Your task to perform on an android device: stop showing notifications on the lock screen Image 0: 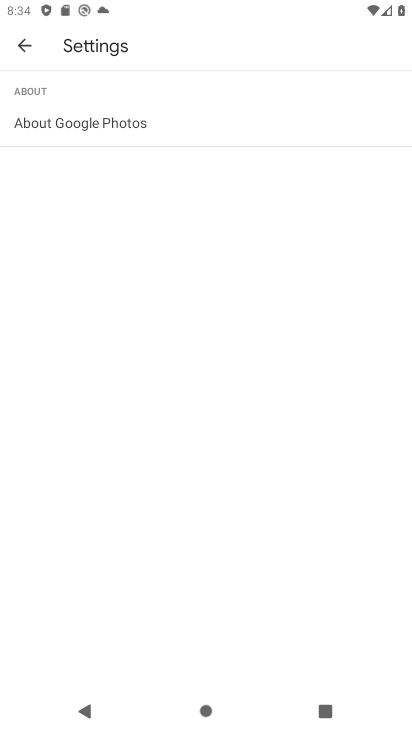
Step 0: press home button
Your task to perform on an android device: stop showing notifications on the lock screen Image 1: 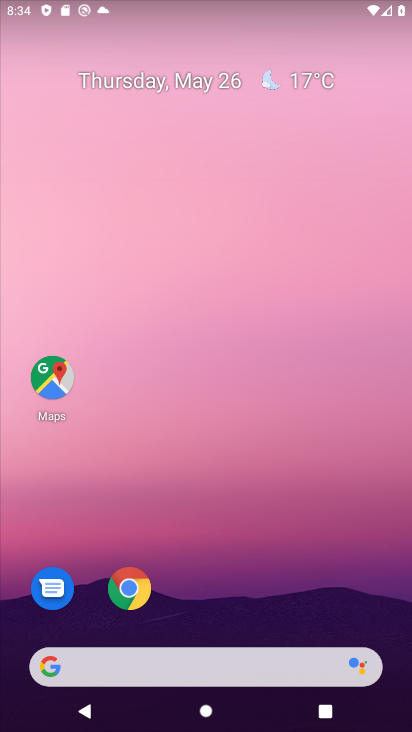
Step 1: drag from (363, 614) to (318, 39)
Your task to perform on an android device: stop showing notifications on the lock screen Image 2: 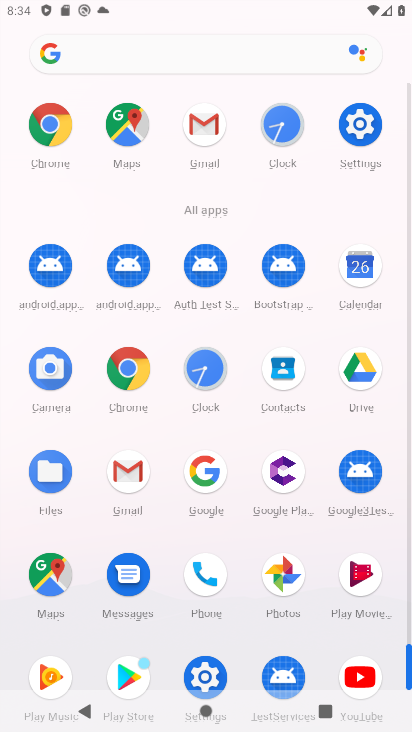
Step 2: click (409, 636)
Your task to perform on an android device: stop showing notifications on the lock screen Image 3: 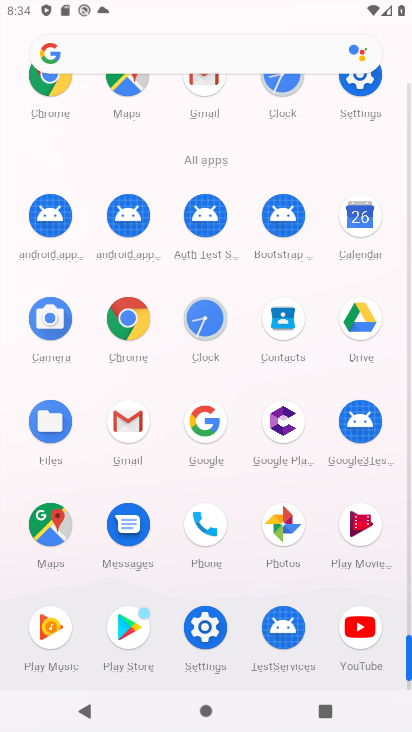
Step 3: click (201, 625)
Your task to perform on an android device: stop showing notifications on the lock screen Image 4: 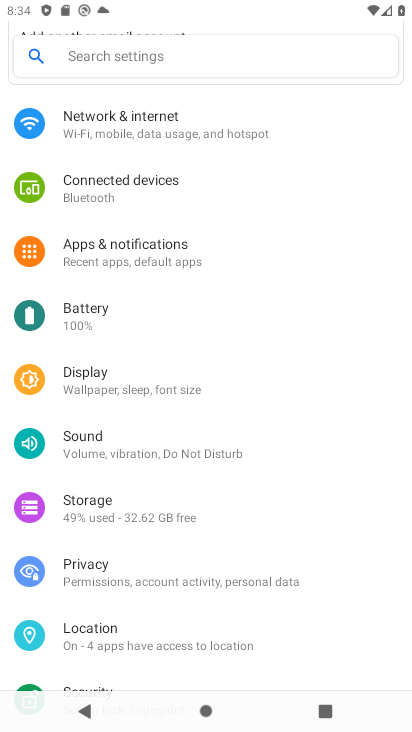
Step 4: click (132, 240)
Your task to perform on an android device: stop showing notifications on the lock screen Image 5: 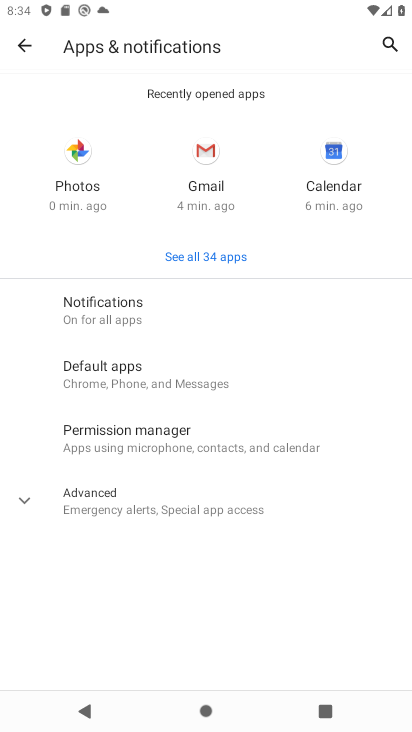
Step 5: click (111, 303)
Your task to perform on an android device: stop showing notifications on the lock screen Image 6: 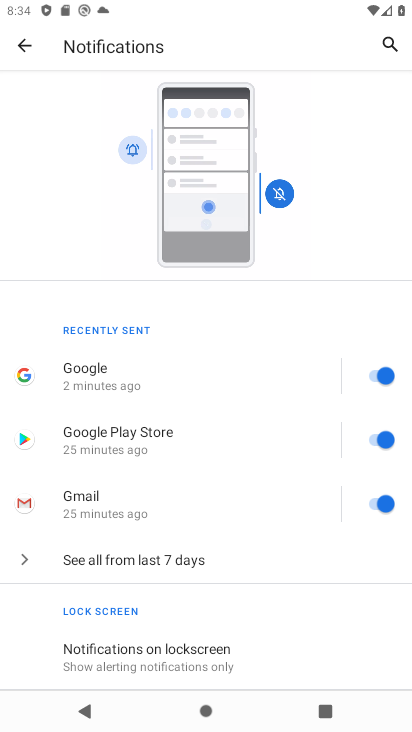
Step 6: drag from (256, 606) to (288, 268)
Your task to perform on an android device: stop showing notifications on the lock screen Image 7: 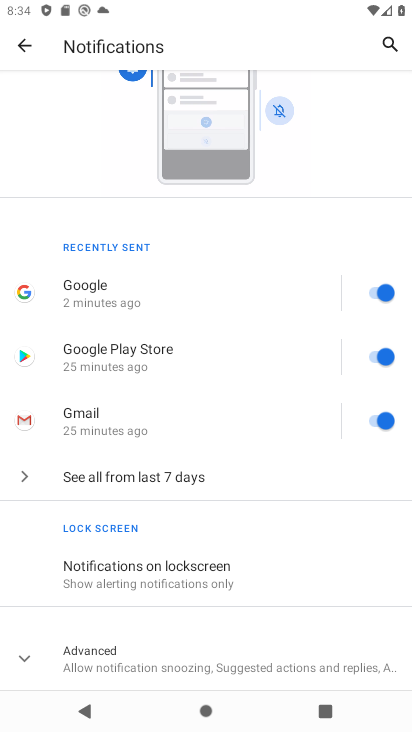
Step 7: click (157, 548)
Your task to perform on an android device: stop showing notifications on the lock screen Image 8: 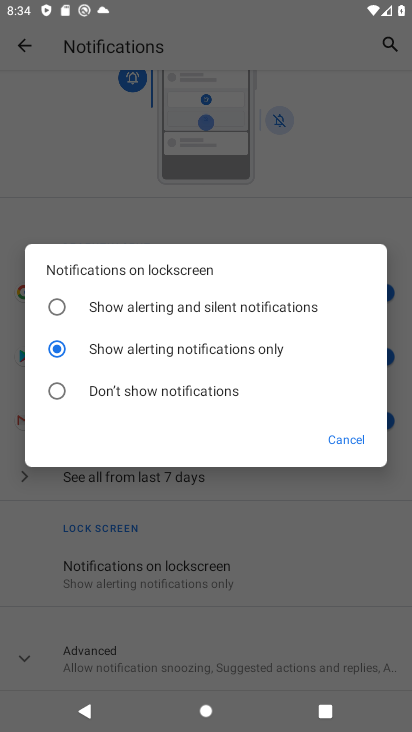
Step 8: click (59, 396)
Your task to perform on an android device: stop showing notifications on the lock screen Image 9: 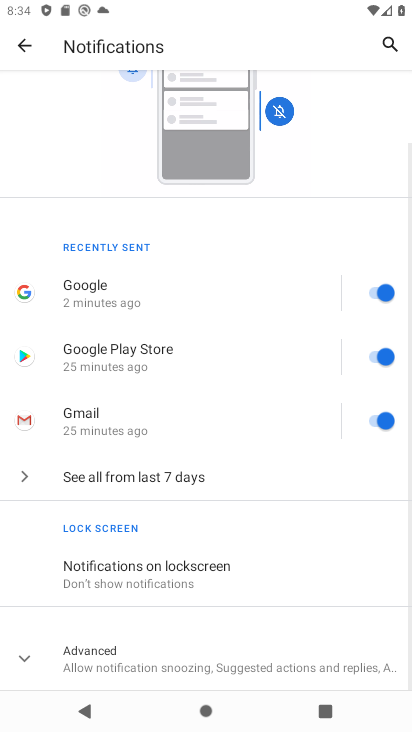
Step 9: task complete